Your task to perform on an android device: find snoozed emails in the gmail app Image 0: 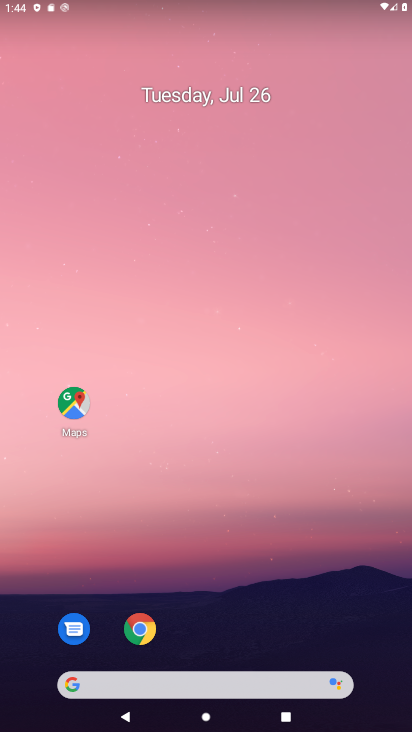
Step 0: drag from (386, 669) to (355, 172)
Your task to perform on an android device: find snoozed emails in the gmail app Image 1: 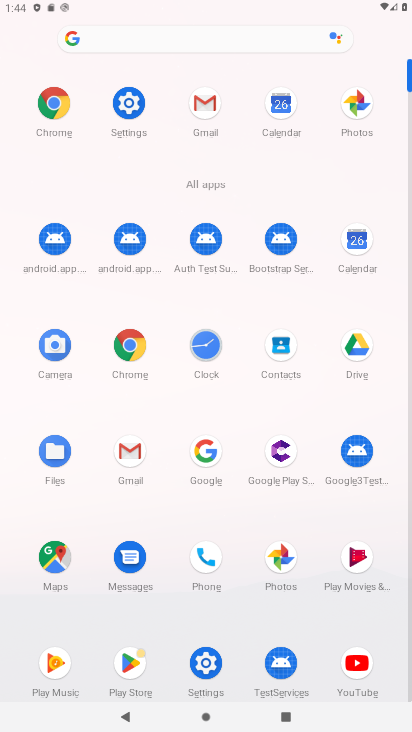
Step 1: click (128, 451)
Your task to perform on an android device: find snoozed emails in the gmail app Image 2: 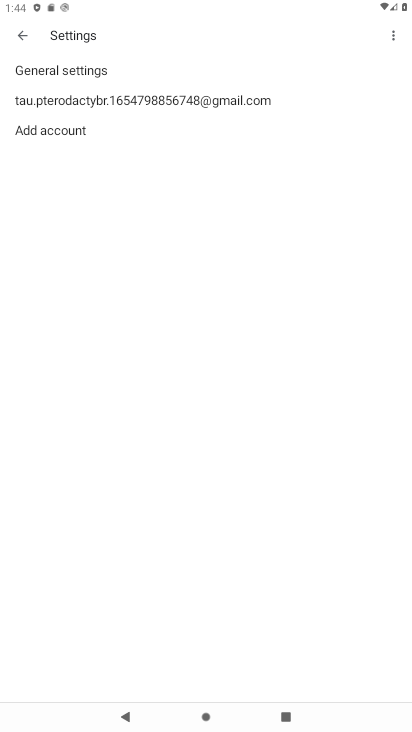
Step 2: press back button
Your task to perform on an android device: find snoozed emails in the gmail app Image 3: 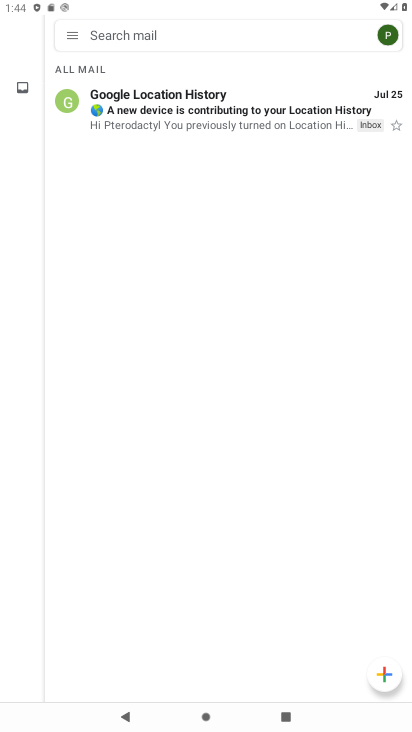
Step 3: click (71, 41)
Your task to perform on an android device: find snoozed emails in the gmail app Image 4: 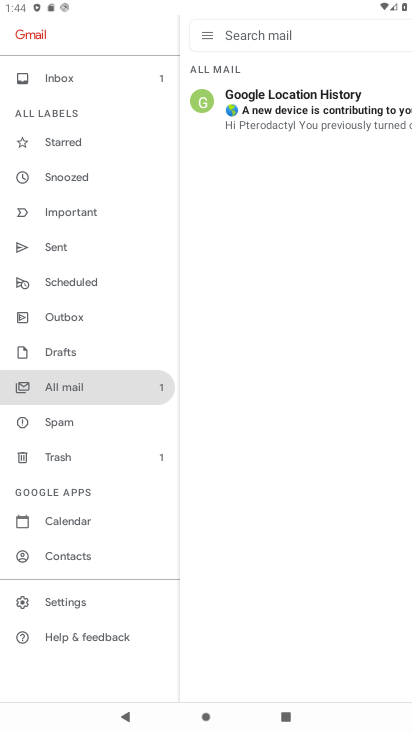
Step 4: click (58, 171)
Your task to perform on an android device: find snoozed emails in the gmail app Image 5: 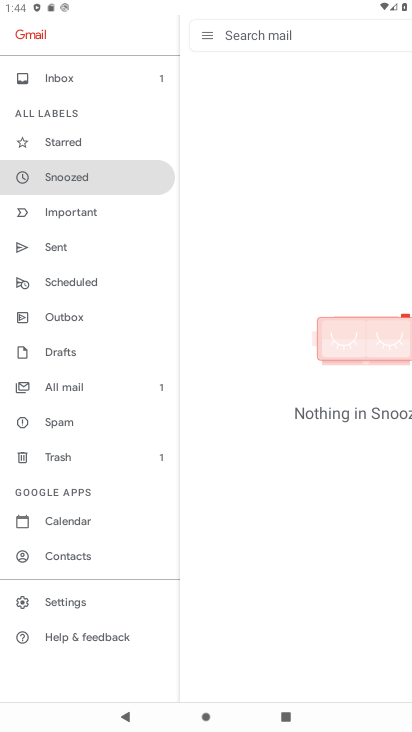
Step 5: task complete